Your task to perform on an android device: Go to display settings Image 0: 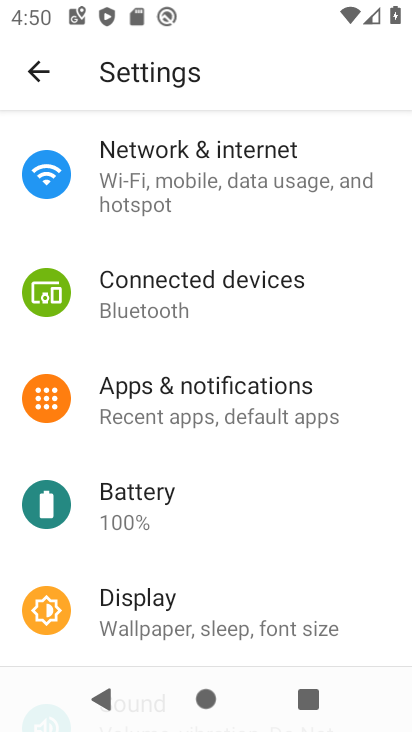
Step 0: click (137, 604)
Your task to perform on an android device: Go to display settings Image 1: 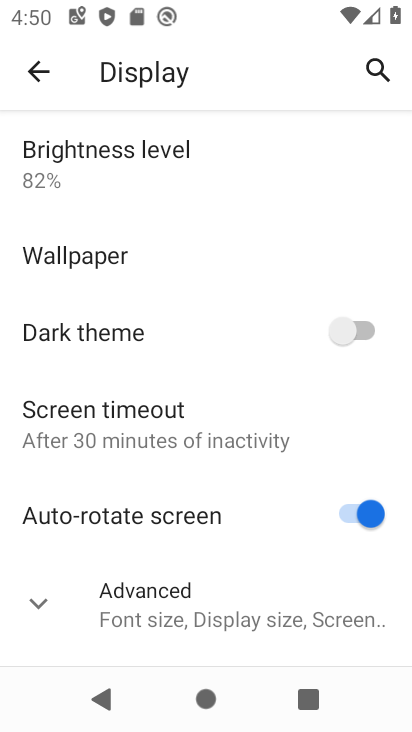
Step 1: task complete